Your task to perform on an android device: Show the shopping cart on bestbuy. Search for macbook air on bestbuy, select the first entry, add it to the cart, then select checkout. Image 0: 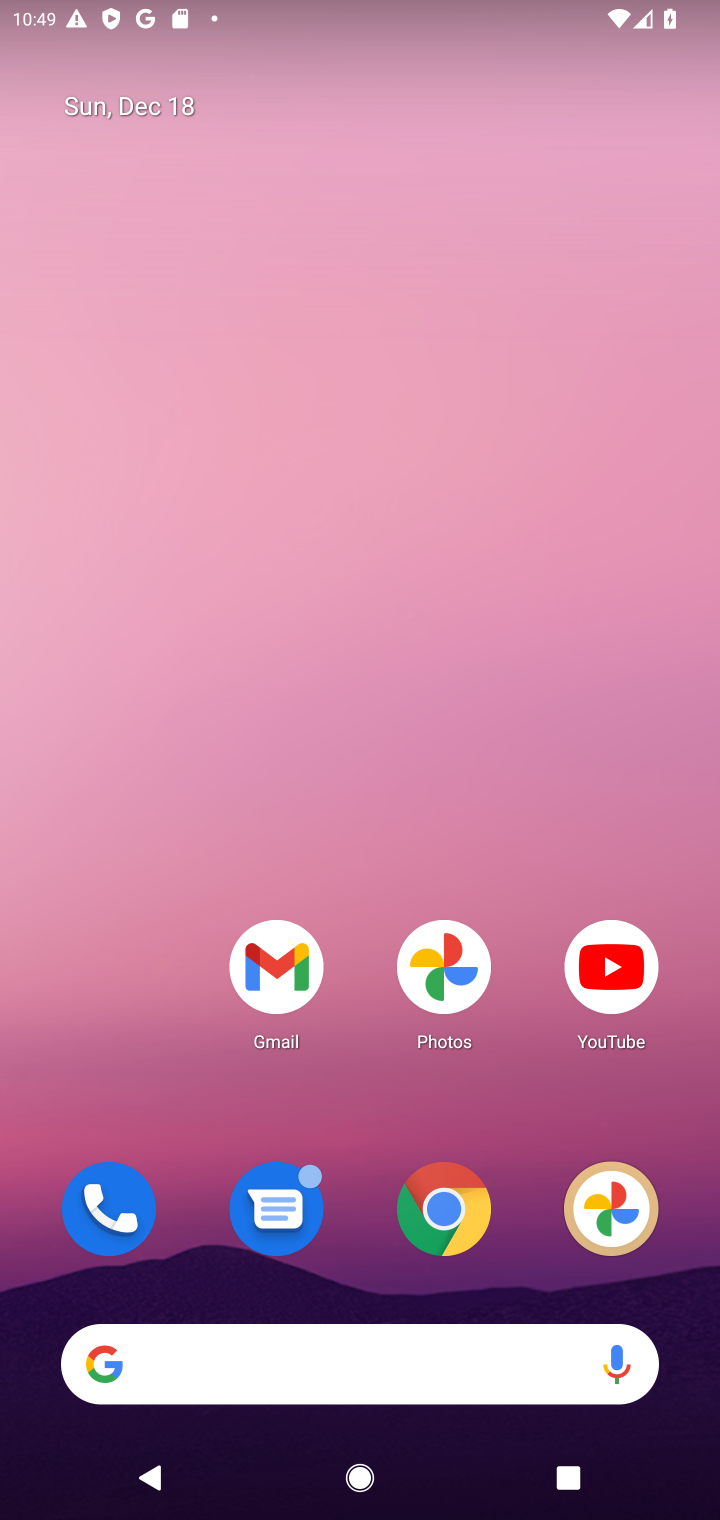
Step 0: click (443, 1240)
Your task to perform on an android device: Show the shopping cart on bestbuy. Search for macbook air on bestbuy, select the first entry, add it to the cart, then select checkout. Image 1: 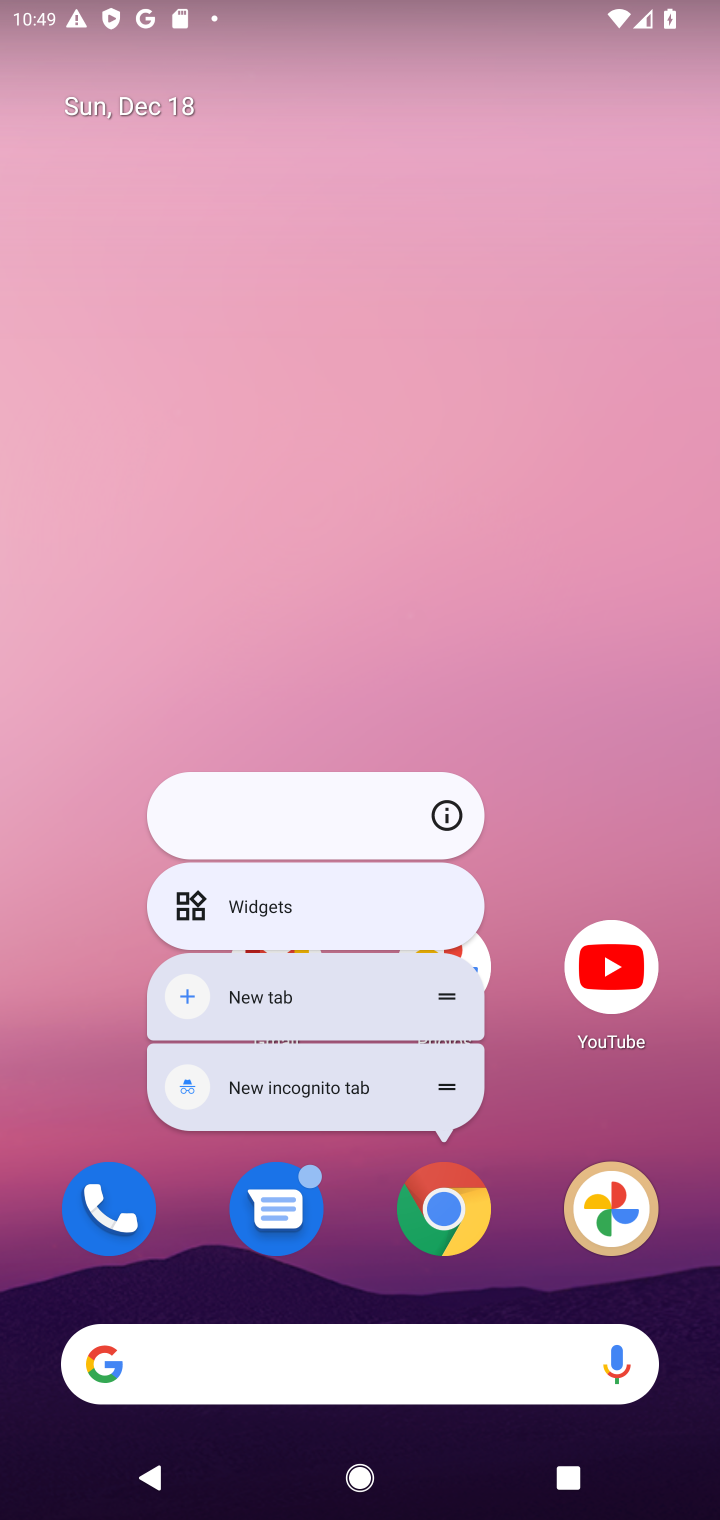
Step 1: click (431, 1185)
Your task to perform on an android device: Show the shopping cart on bestbuy. Search for macbook air on bestbuy, select the first entry, add it to the cart, then select checkout. Image 2: 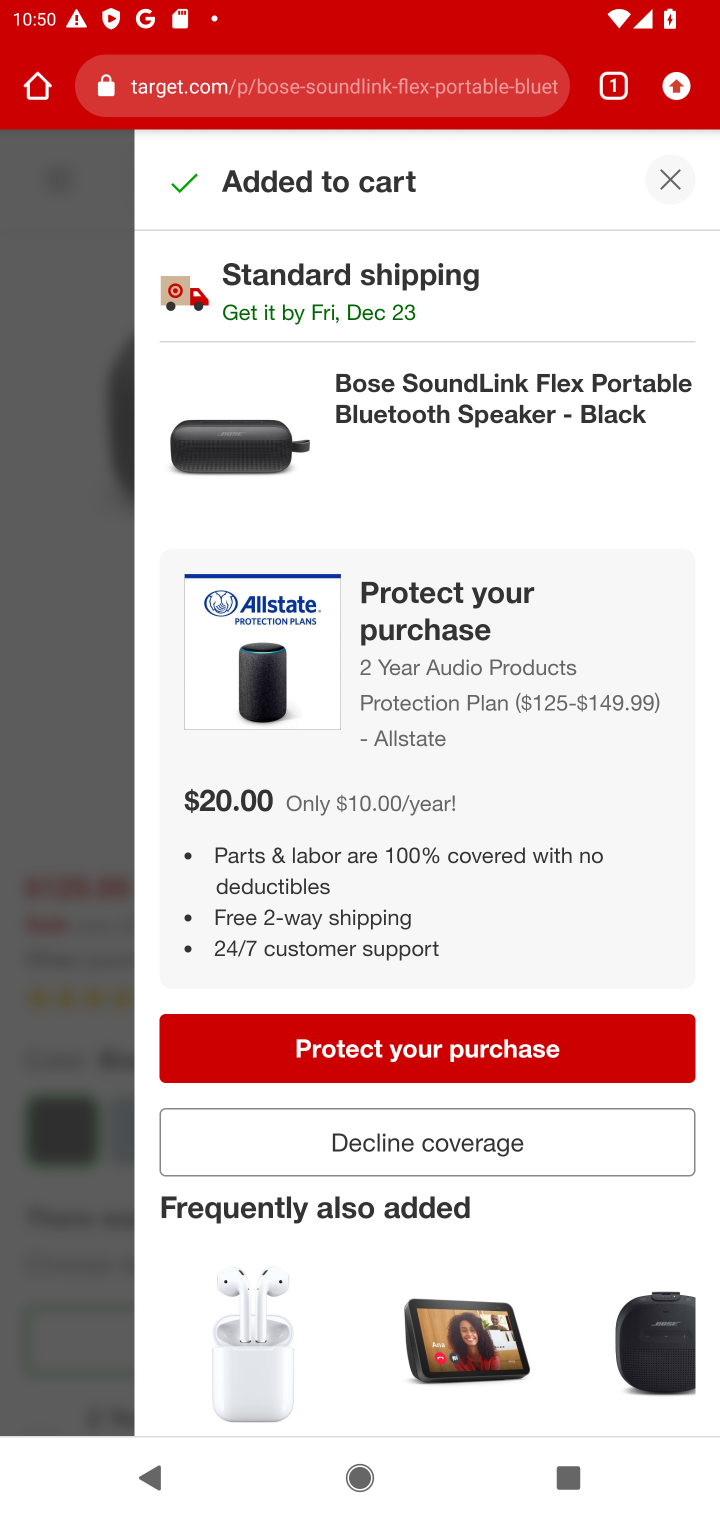
Step 2: click (293, 78)
Your task to perform on an android device: Show the shopping cart on bestbuy. Search for macbook air on bestbuy, select the first entry, add it to the cart, then select checkout. Image 3: 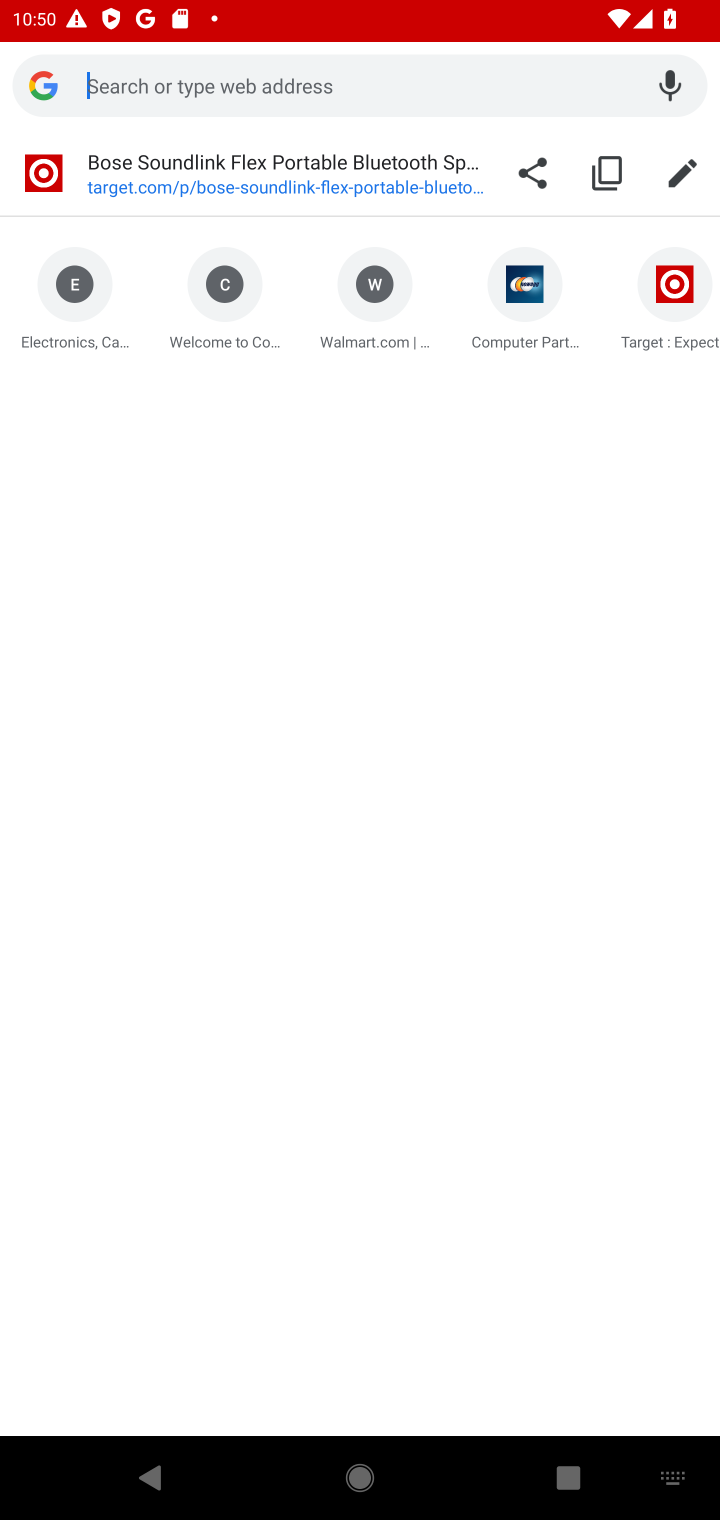
Step 3: type "BESTBUY"
Your task to perform on an android device: Show the shopping cart on bestbuy. Search for macbook air on bestbuy, select the first entry, add it to the cart, then select checkout. Image 4: 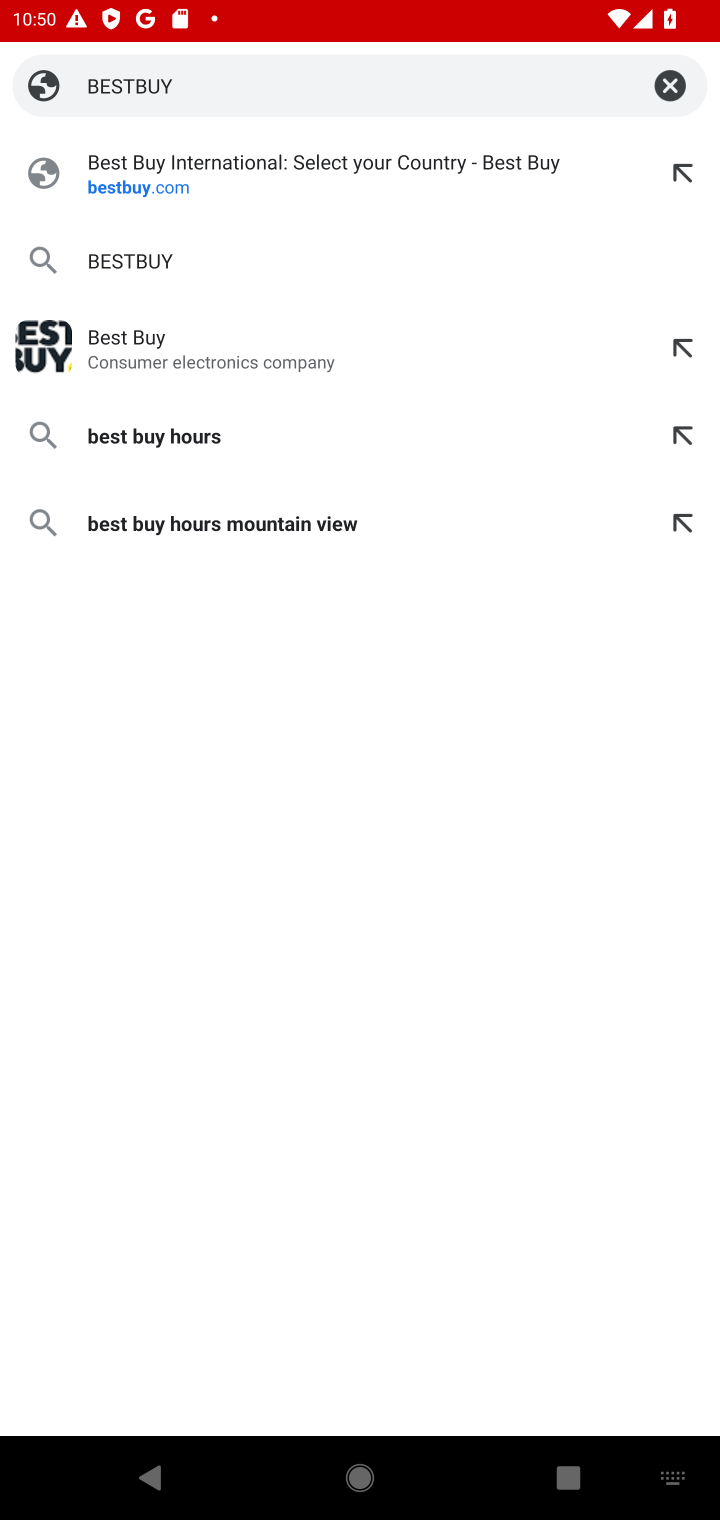
Step 4: click (171, 183)
Your task to perform on an android device: Show the shopping cart on bestbuy. Search for macbook air on bestbuy, select the first entry, add it to the cart, then select checkout. Image 5: 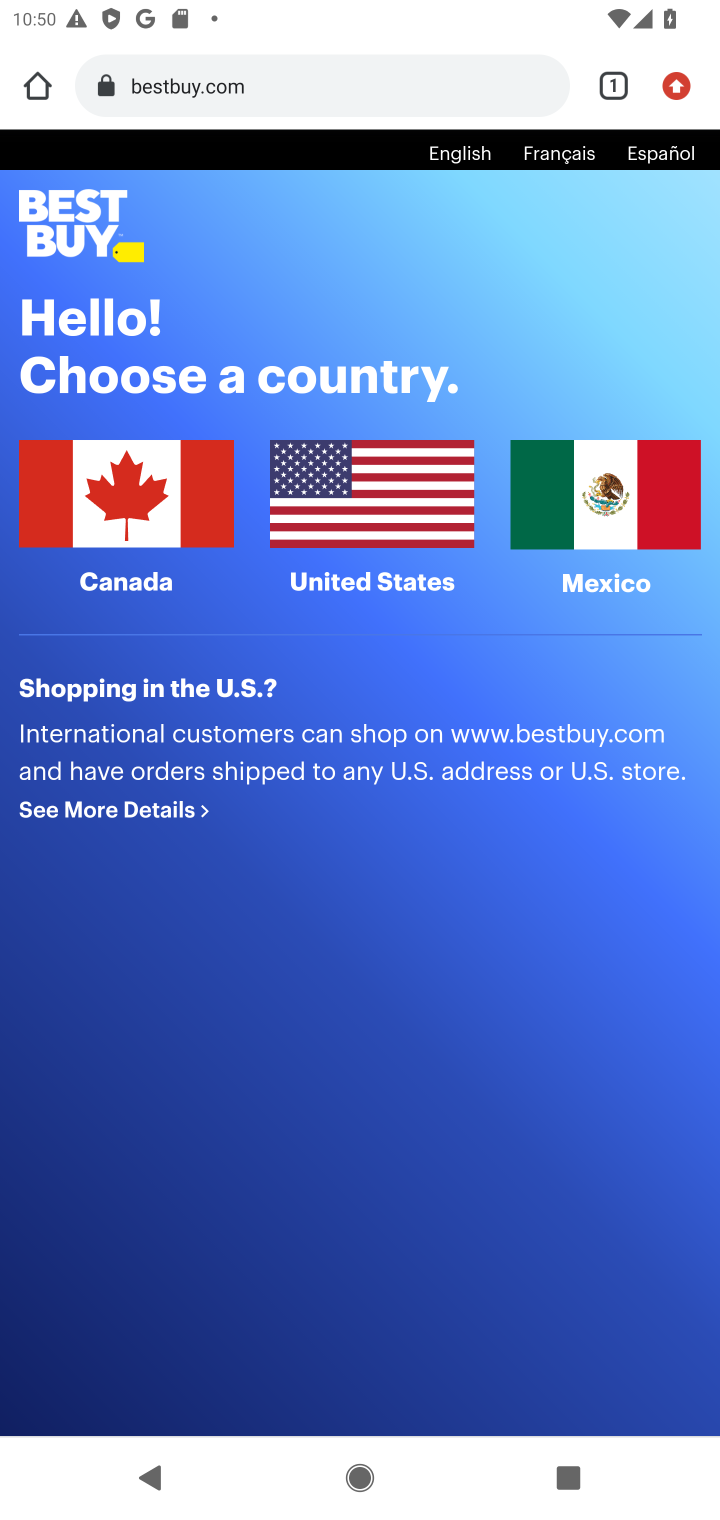
Step 5: click (375, 491)
Your task to perform on an android device: Show the shopping cart on bestbuy. Search for macbook air on bestbuy, select the first entry, add it to the cart, then select checkout. Image 6: 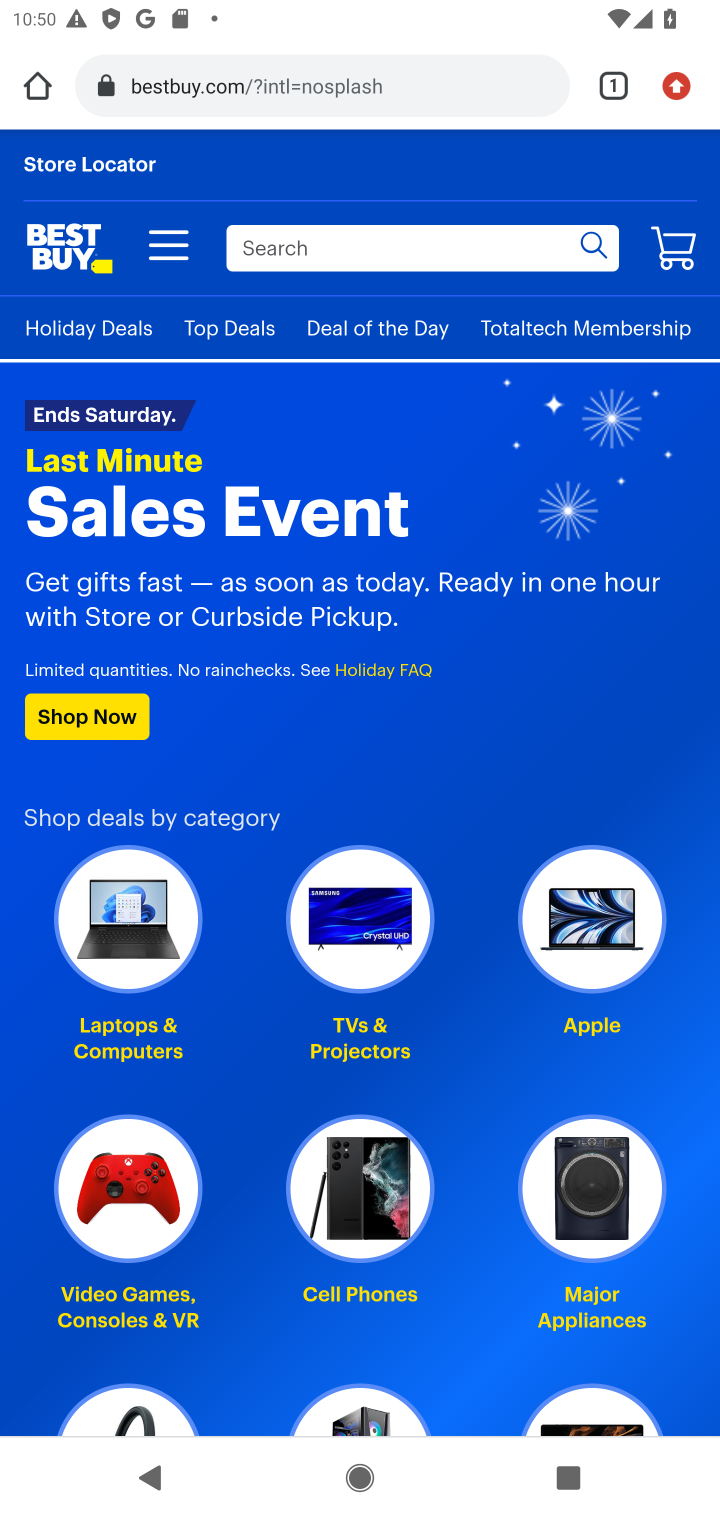
Step 6: click (461, 257)
Your task to perform on an android device: Show the shopping cart on bestbuy. Search for macbook air on bestbuy, select the first entry, add it to the cart, then select checkout. Image 7: 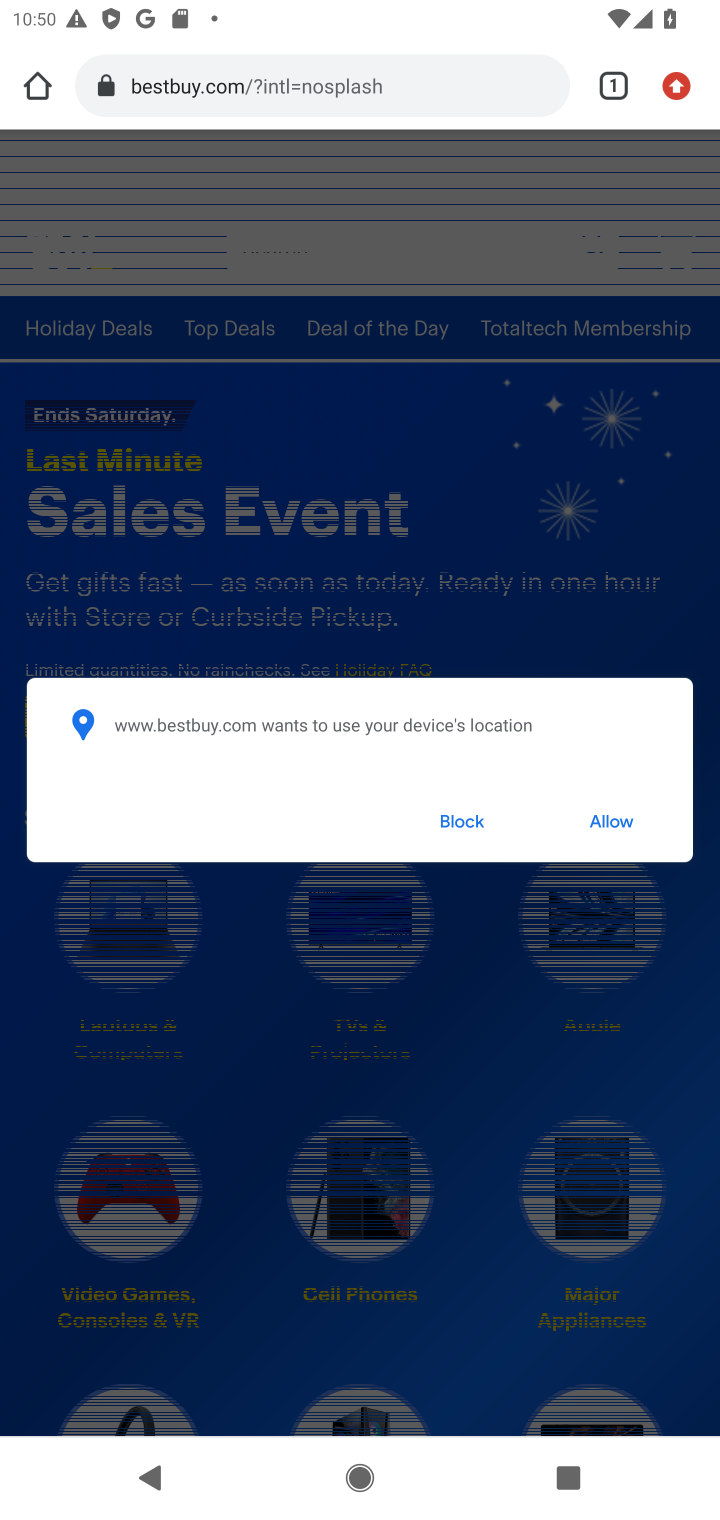
Step 7: click (457, 816)
Your task to perform on an android device: Show the shopping cart on bestbuy. Search for macbook air on bestbuy, select the first entry, add it to the cart, then select checkout. Image 8: 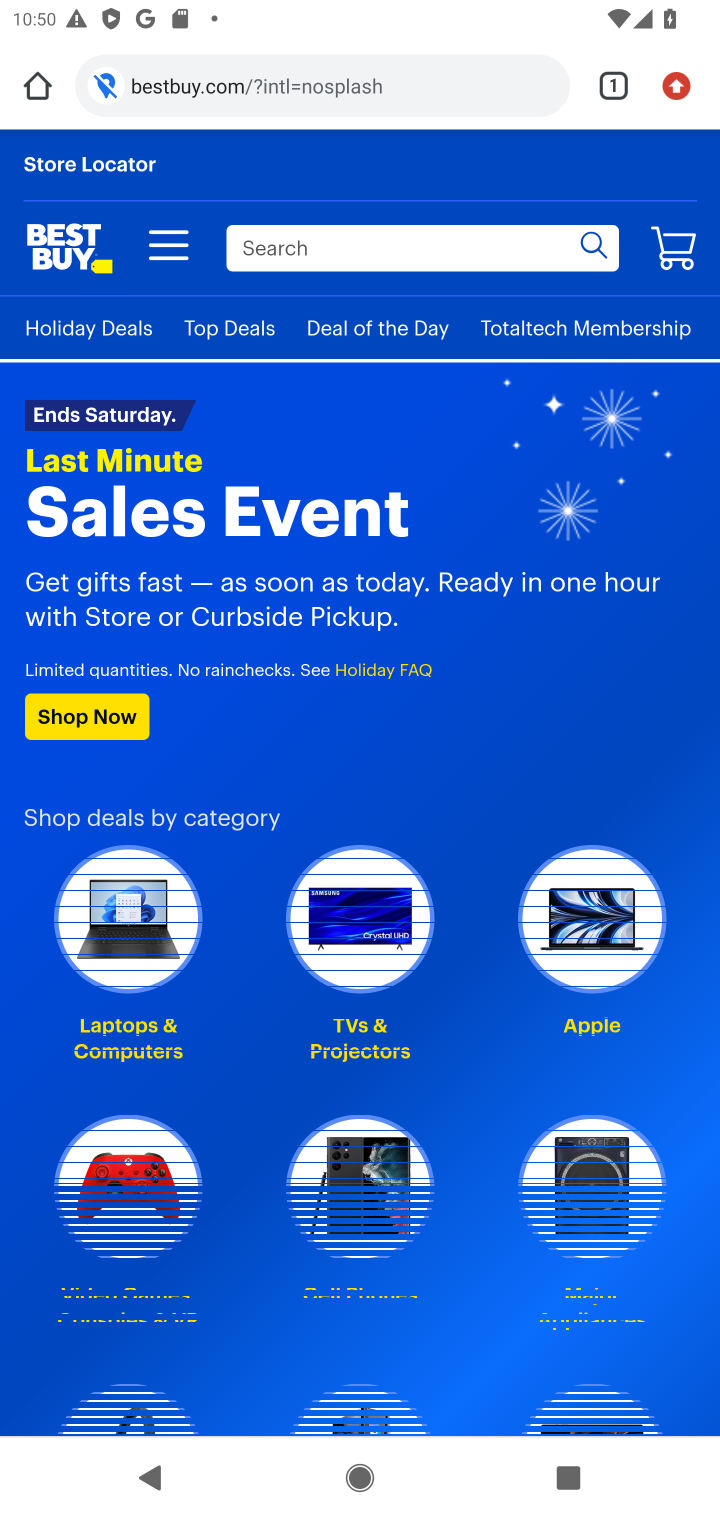
Step 8: click (398, 246)
Your task to perform on an android device: Show the shopping cart on bestbuy. Search for macbook air on bestbuy, select the first entry, add it to the cart, then select checkout. Image 9: 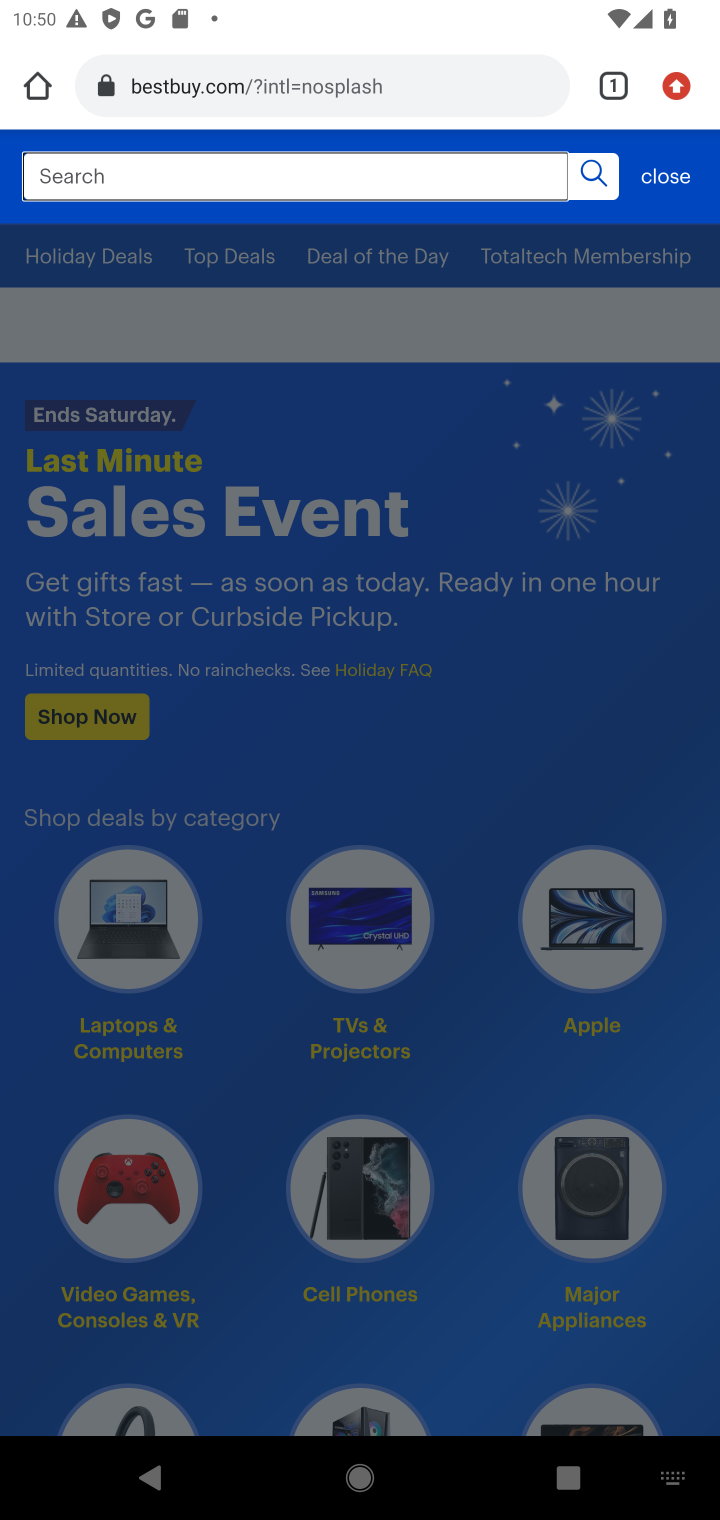
Step 9: type "MACBOOK"
Your task to perform on an android device: Show the shopping cart on bestbuy. Search for macbook air on bestbuy, select the first entry, add it to the cart, then select checkout. Image 10: 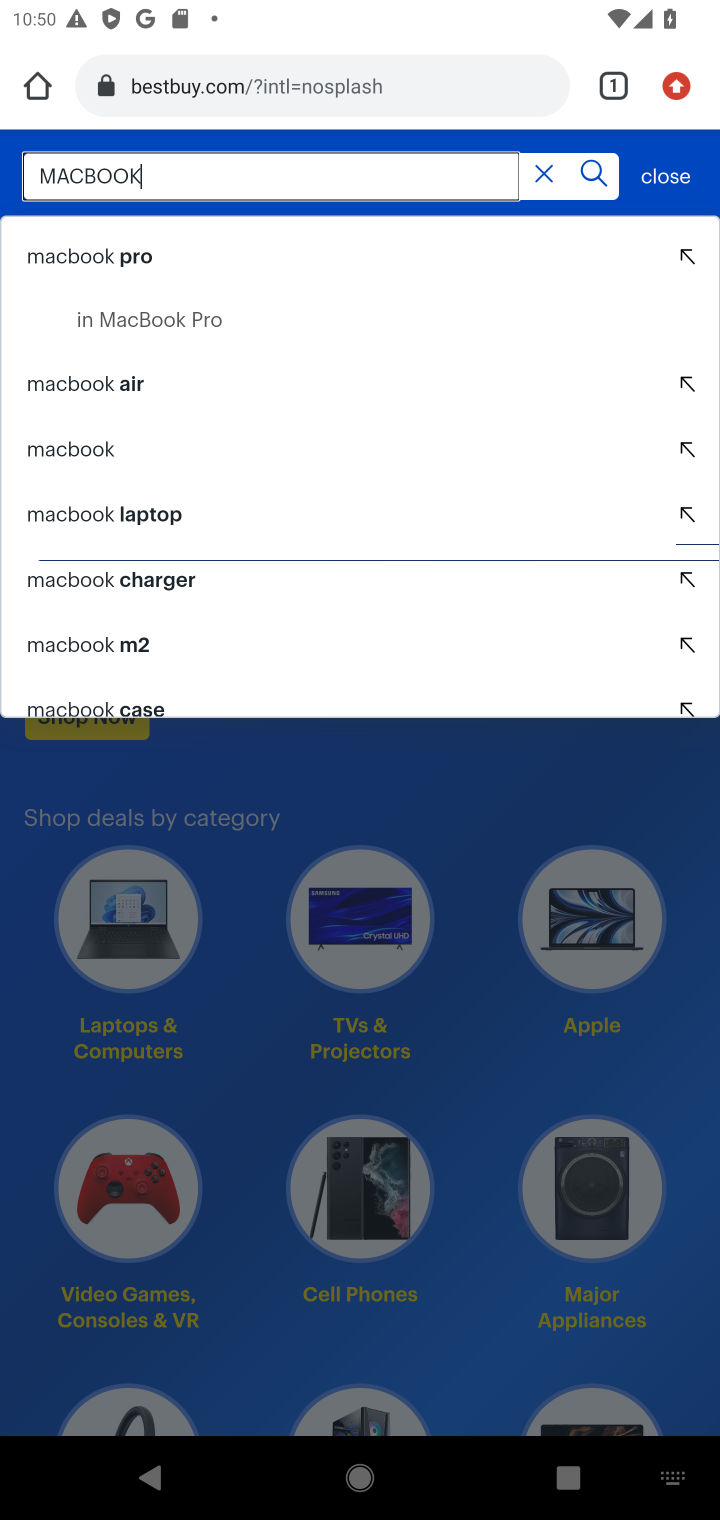
Step 10: click (120, 259)
Your task to perform on an android device: Show the shopping cart on bestbuy. Search for macbook air on bestbuy, select the first entry, add it to the cart, then select checkout. Image 11: 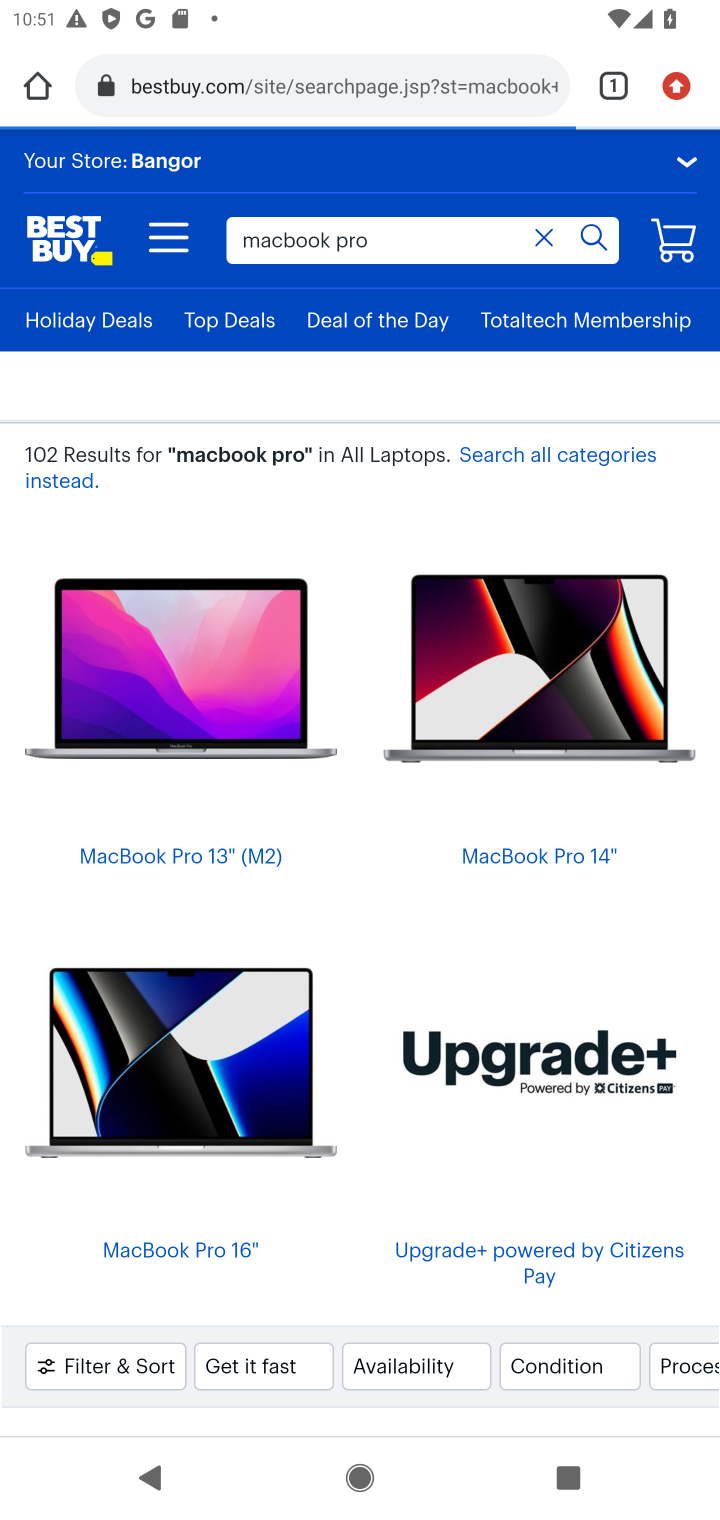
Step 11: click (199, 703)
Your task to perform on an android device: Show the shopping cart on bestbuy. Search for macbook air on bestbuy, select the first entry, add it to the cart, then select checkout. Image 12: 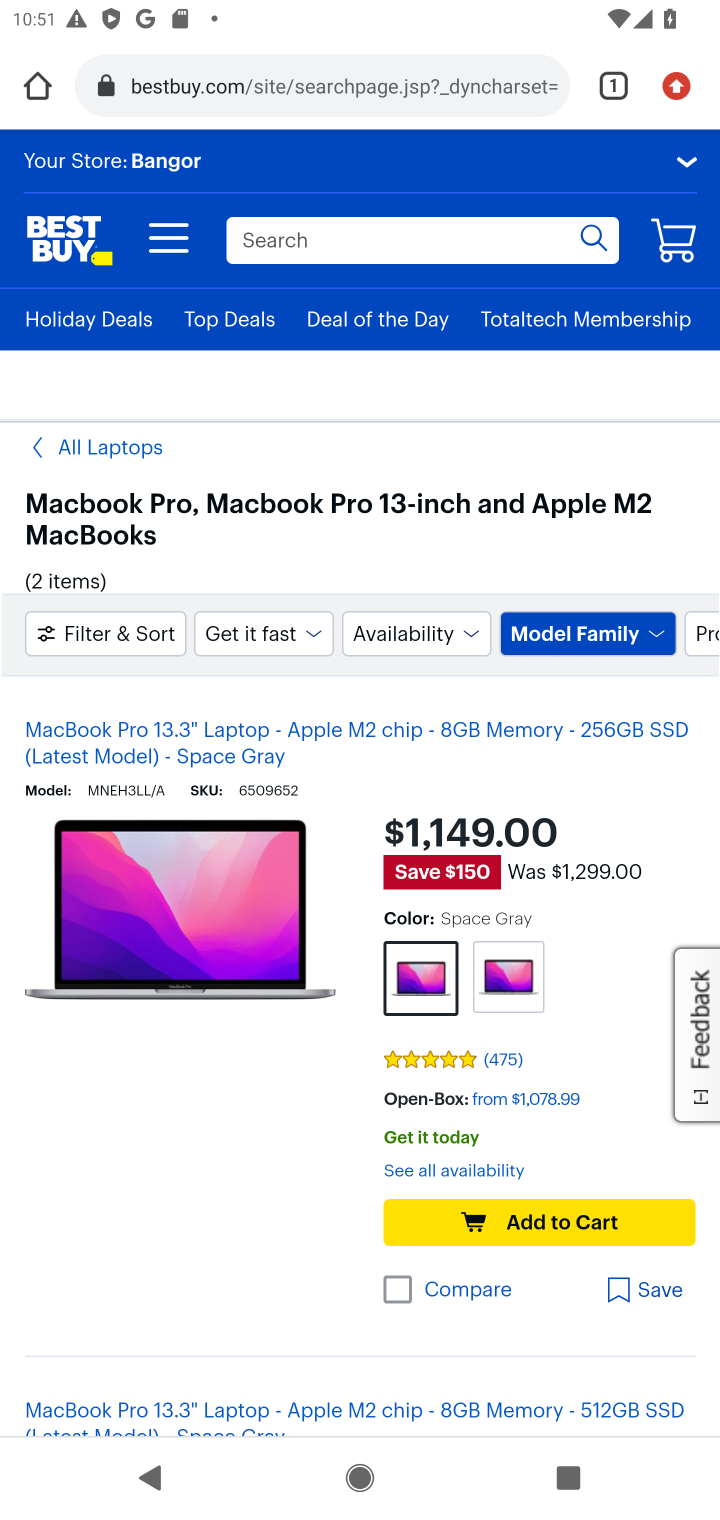
Step 12: click (550, 1225)
Your task to perform on an android device: Show the shopping cart on bestbuy. Search for macbook air on bestbuy, select the first entry, add it to the cart, then select checkout. Image 13: 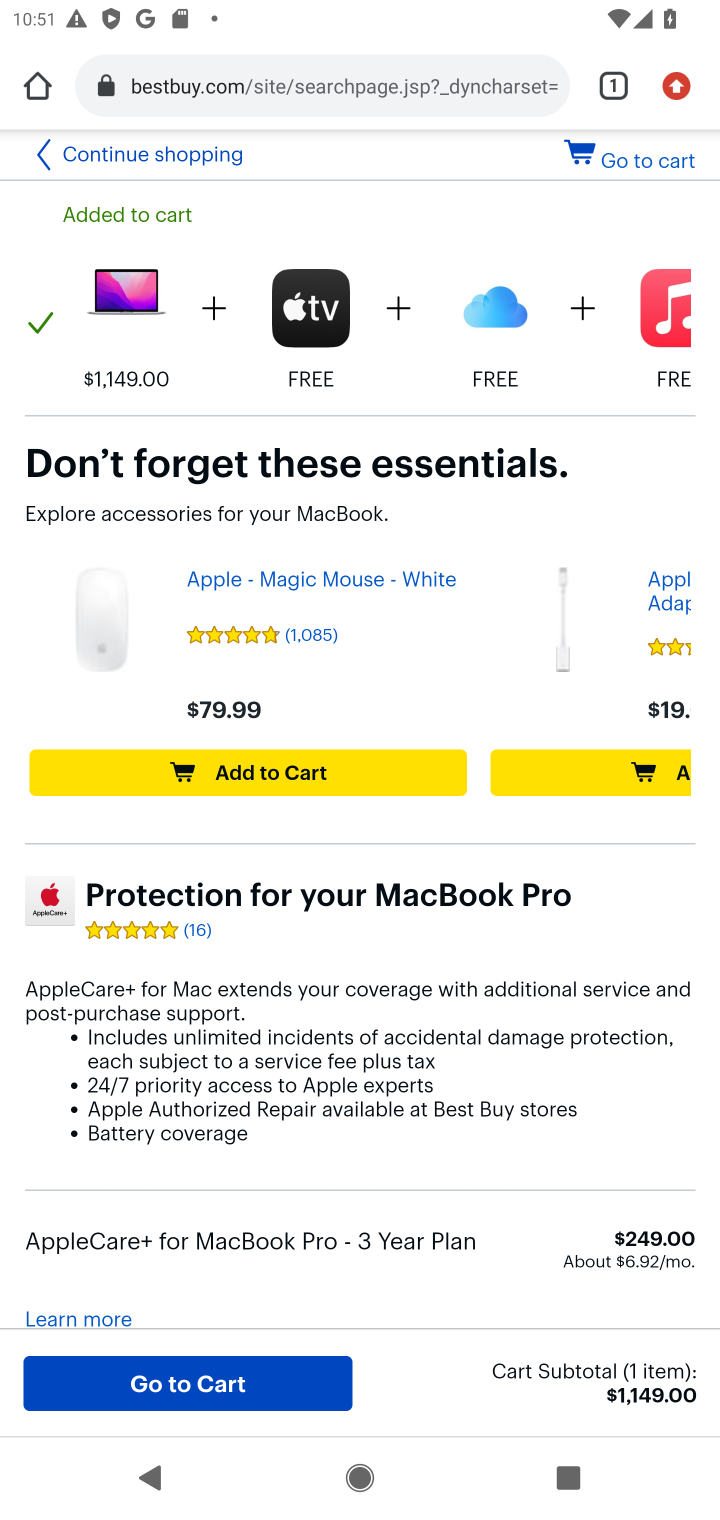
Step 13: click (624, 152)
Your task to perform on an android device: Show the shopping cart on bestbuy. Search for macbook air on bestbuy, select the first entry, add it to the cart, then select checkout. Image 14: 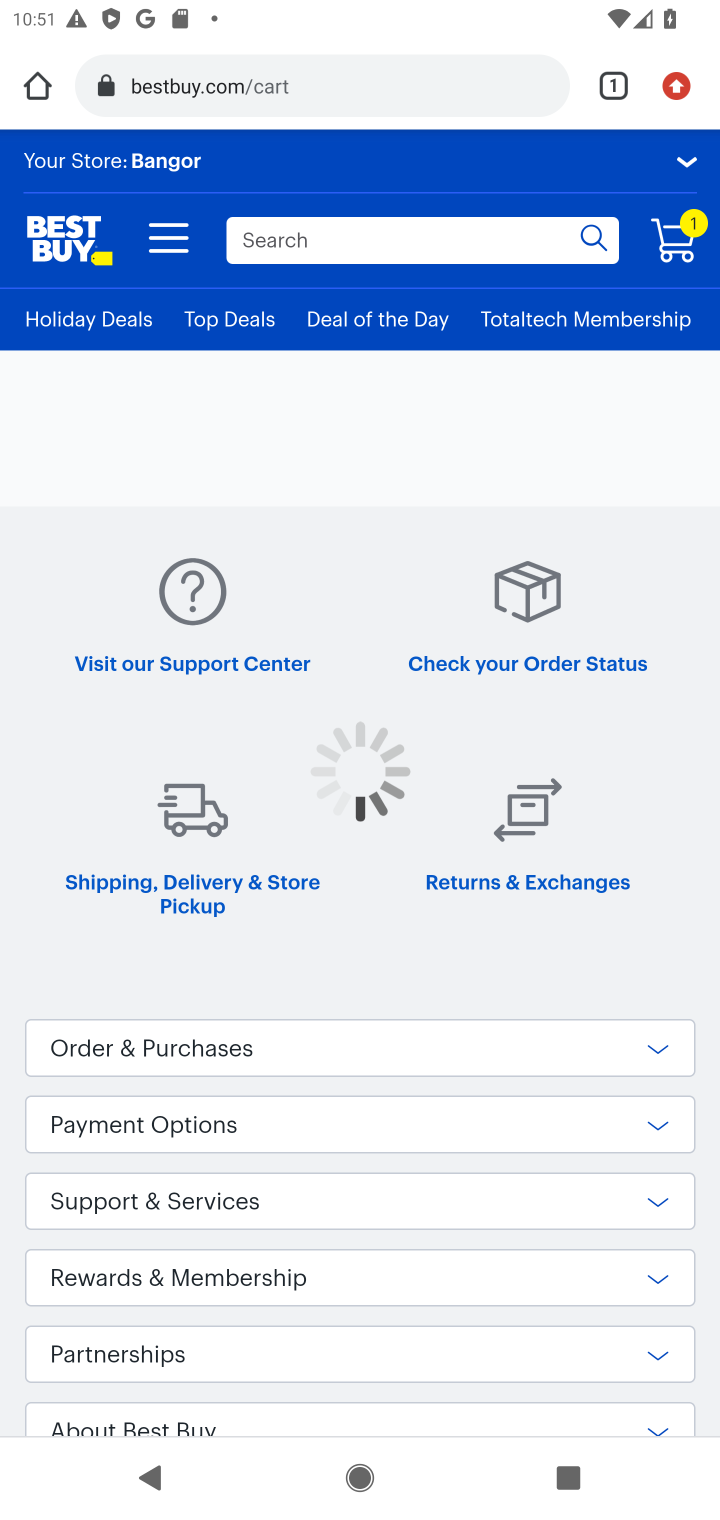
Step 14: click (677, 242)
Your task to perform on an android device: Show the shopping cart on bestbuy. Search for macbook air on bestbuy, select the first entry, add it to the cart, then select checkout. Image 15: 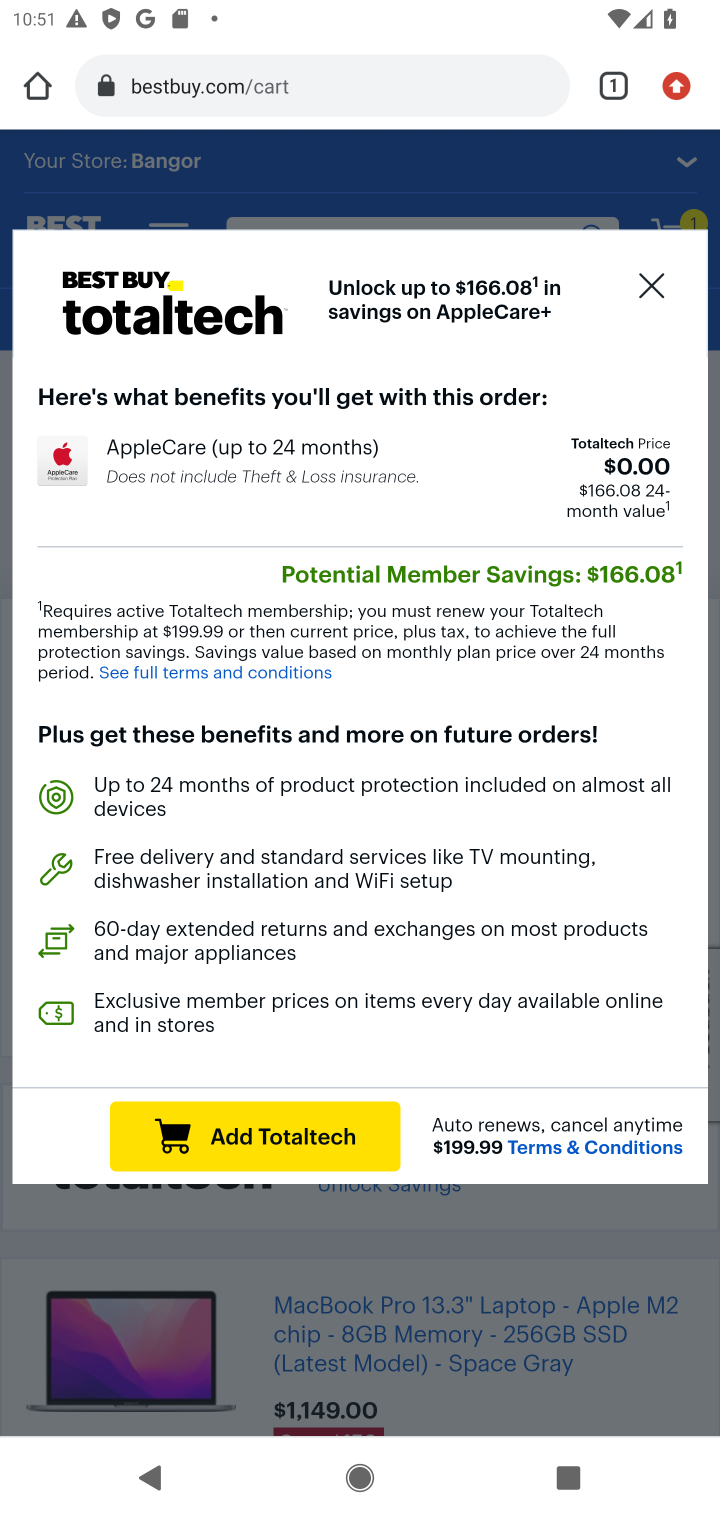
Step 15: click (647, 287)
Your task to perform on an android device: Show the shopping cart on bestbuy. Search for macbook air on bestbuy, select the first entry, add it to the cart, then select checkout. Image 16: 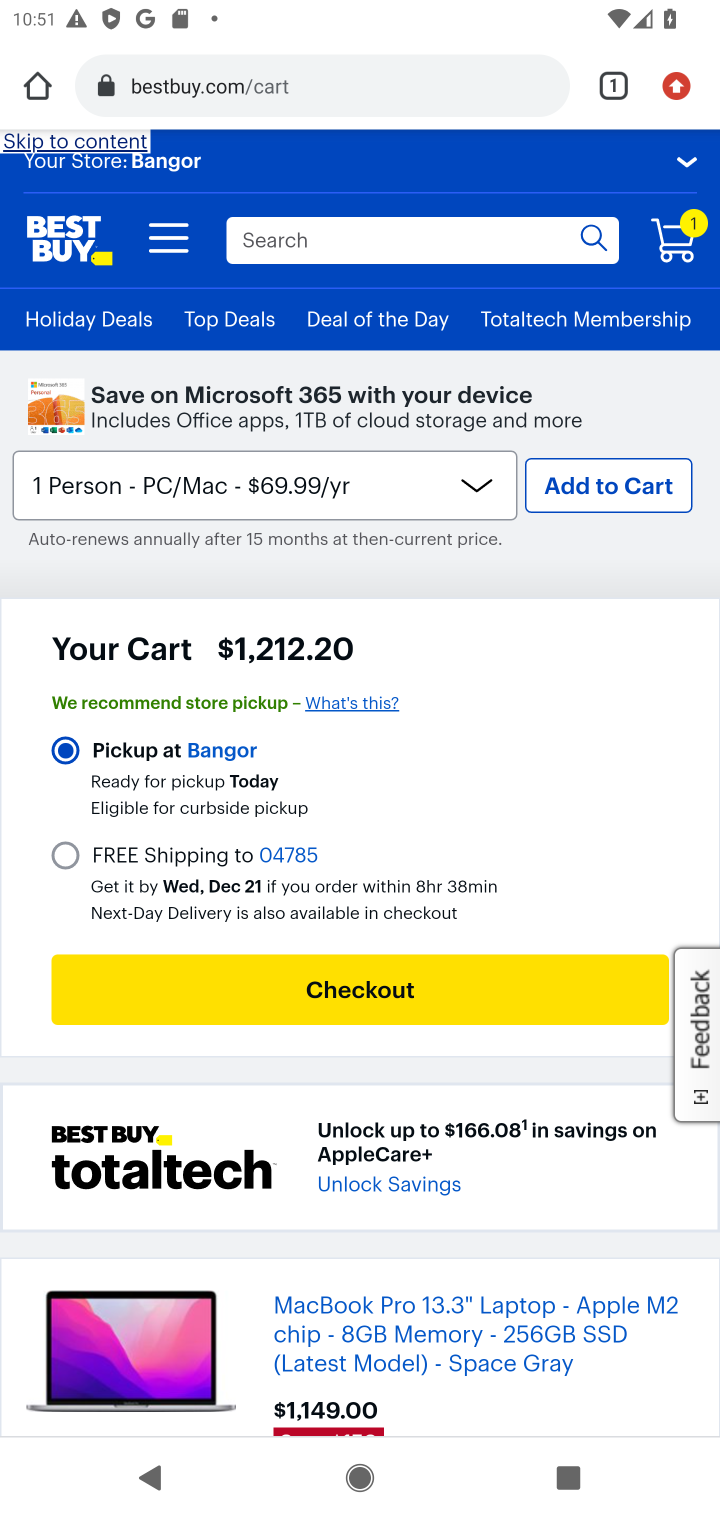
Step 16: click (684, 239)
Your task to perform on an android device: Show the shopping cart on bestbuy. Search for macbook air on bestbuy, select the first entry, add it to the cart, then select checkout. Image 17: 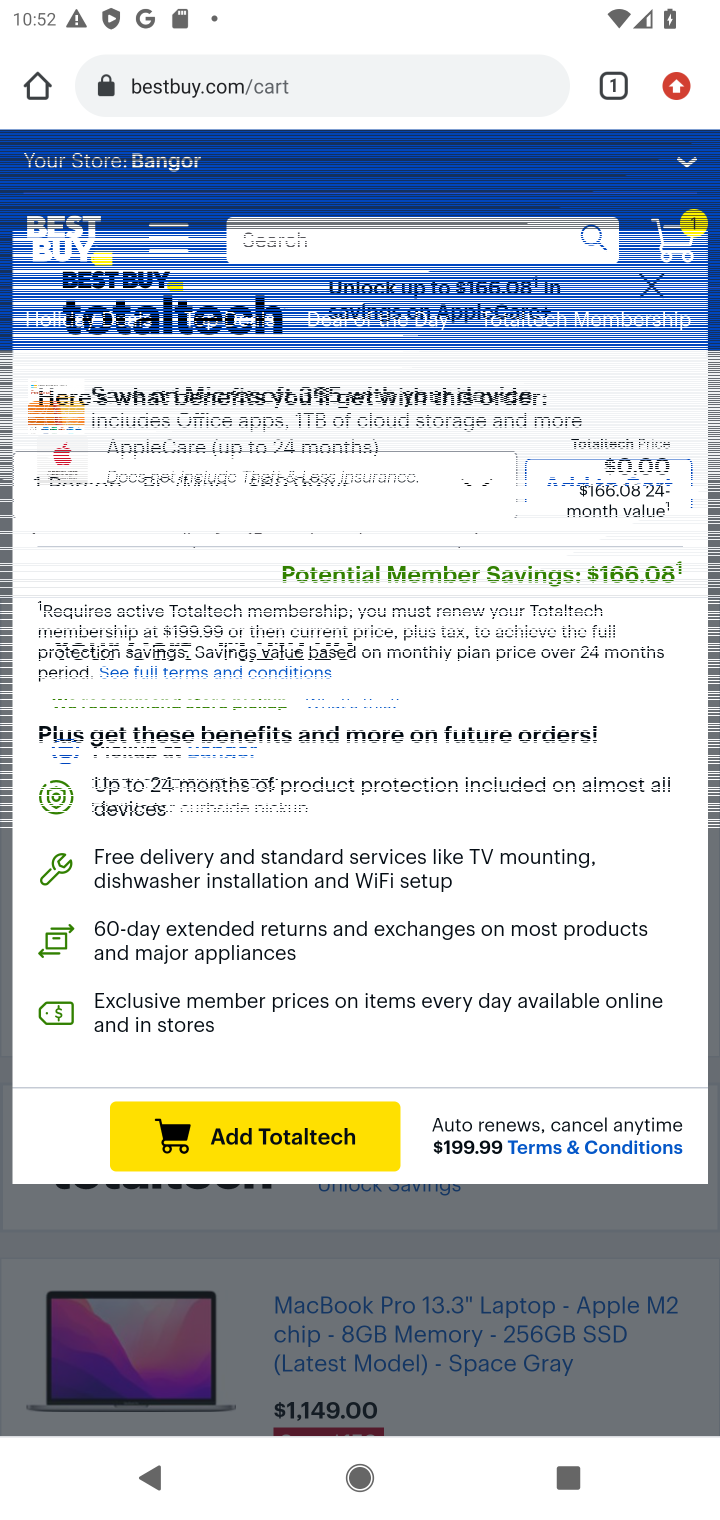
Step 17: click (217, 1226)
Your task to perform on an android device: Show the shopping cart on bestbuy. Search for macbook air on bestbuy, select the first entry, add it to the cart, then select checkout. Image 18: 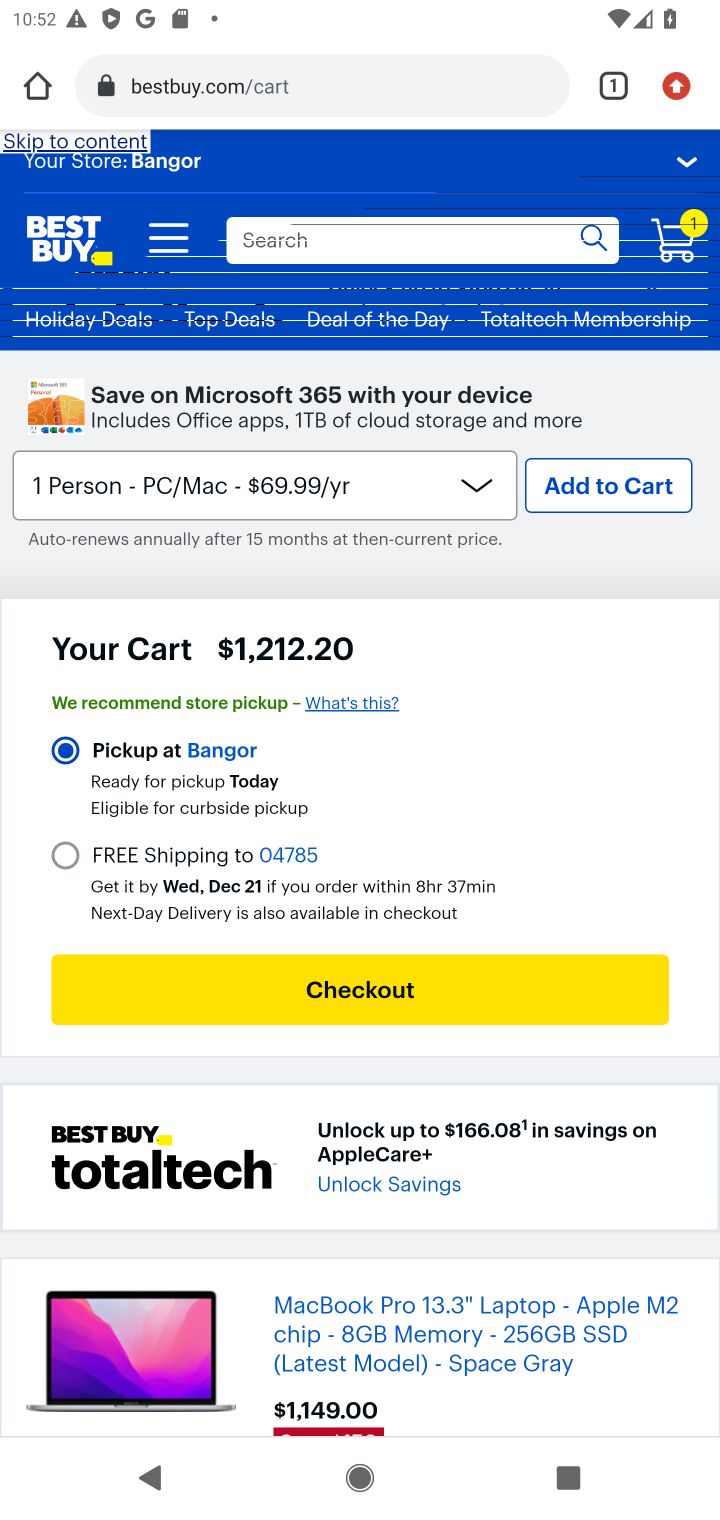
Step 18: click (393, 993)
Your task to perform on an android device: Show the shopping cart on bestbuy. Search for macbook air on bestbuy, select the first entry, add it to the cart, then select checkout. Image 19: 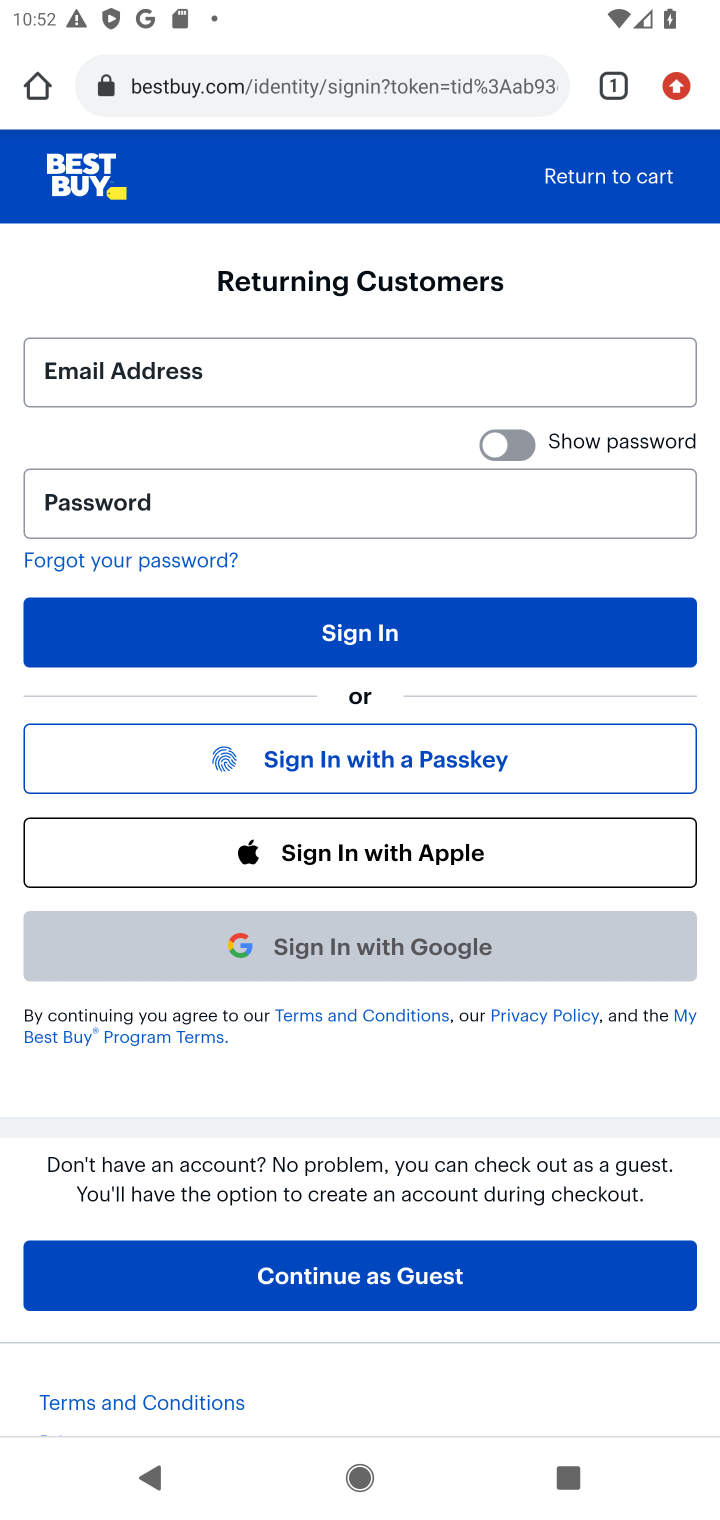
Step 19: task complete